Your task to perform on an android device: Open Google Maps Image 0: 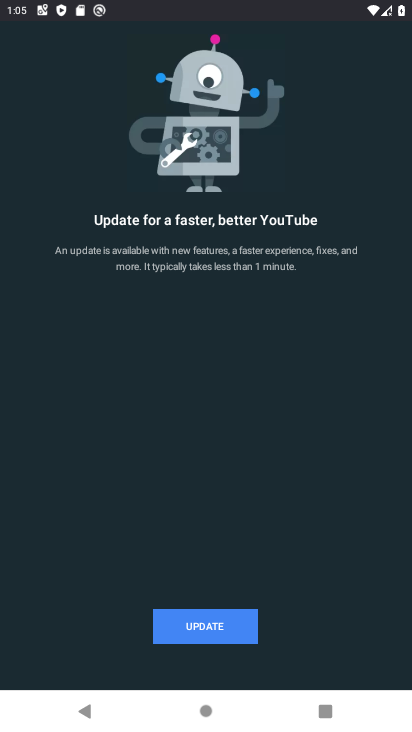
Step 0: press home button
Your task to perform on an android device: Open Google Maps Image 1: 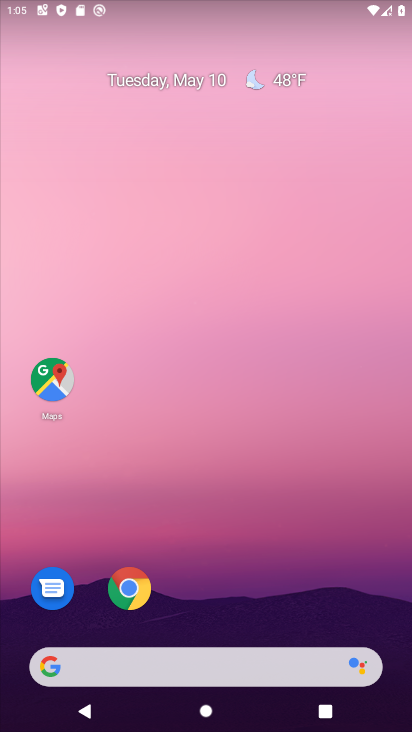
Step 1: drag from (257, 552) to (317, 61)
Your task to perform on an android device: Open Google Maps Image 2: 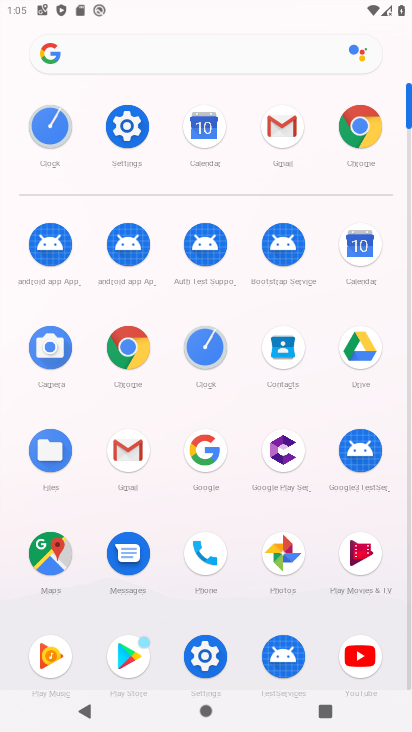
Step 2: click (45, 544)
Your task to perform on an android device: Open Google Maps Image 3: 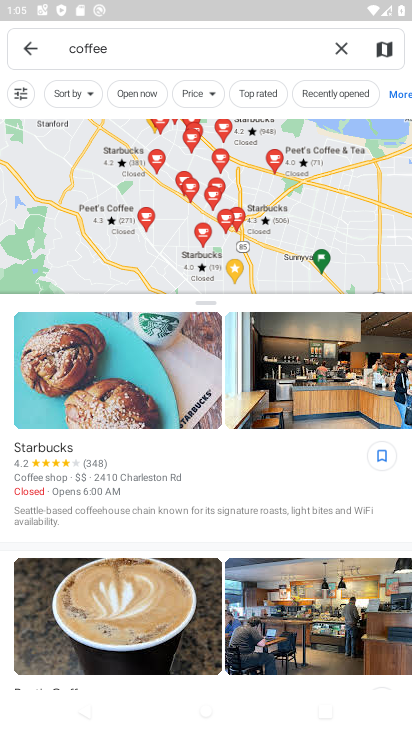
Step 3: click (337, 40)
Your task to perform on an android device: Open Google Maps Image 4: 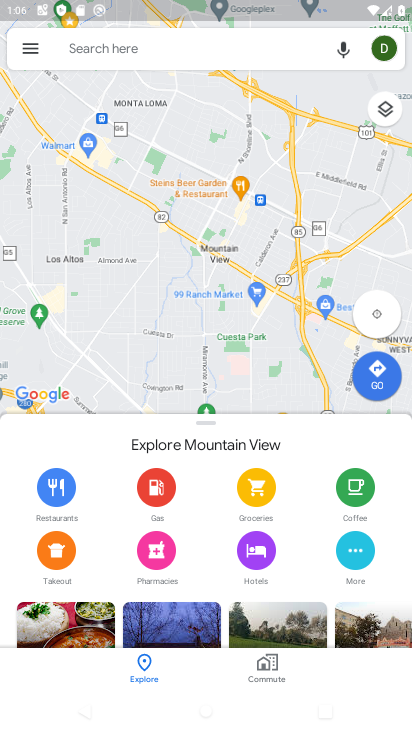
Step 4: task complete